Your task to perform on an android device: Open Reddit.com Image 0: 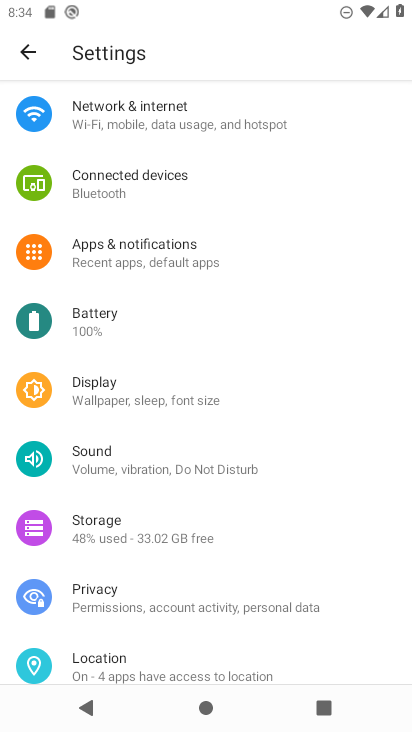
Step 0: press home button
Your task to perform on an android device: Open Reddit.com Image 1: 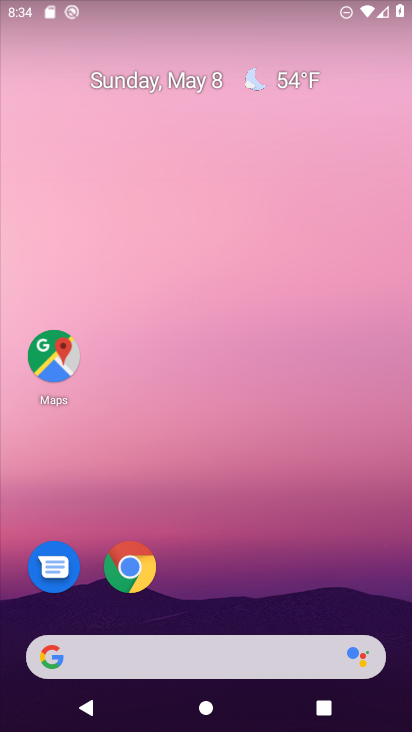
Step 1: drag from (302, 540) to (409, 134)
Your task to perform on an android device: Open Reddit.com Image 2: 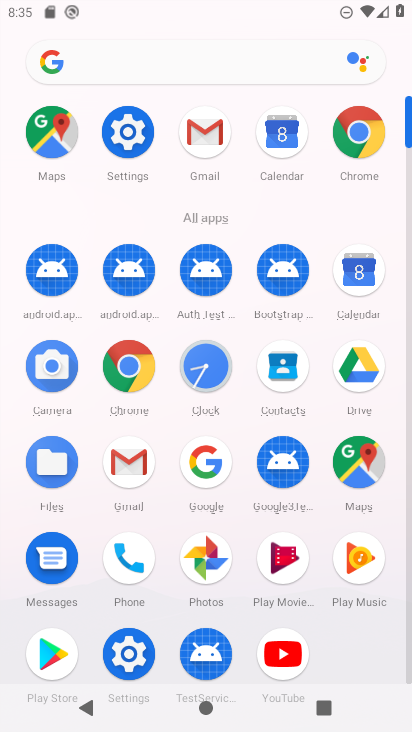
Step 2: click (369, 145)
Your task to perform on an android device: Open Reddit.com Image 3: 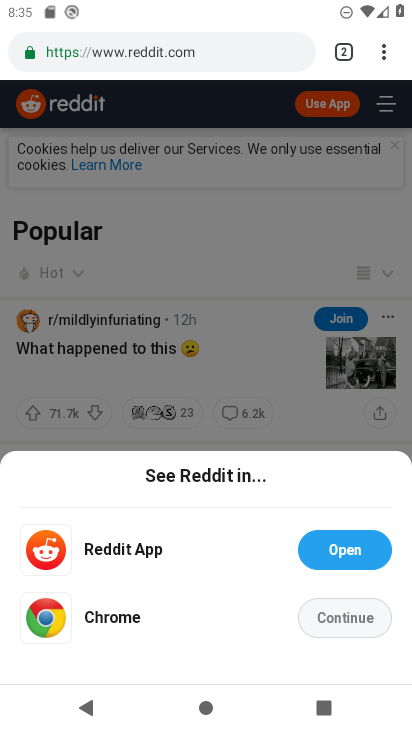
Step 3: click (288, 401)
Your task to perform on an android device: Open Reddit.com Image 4: 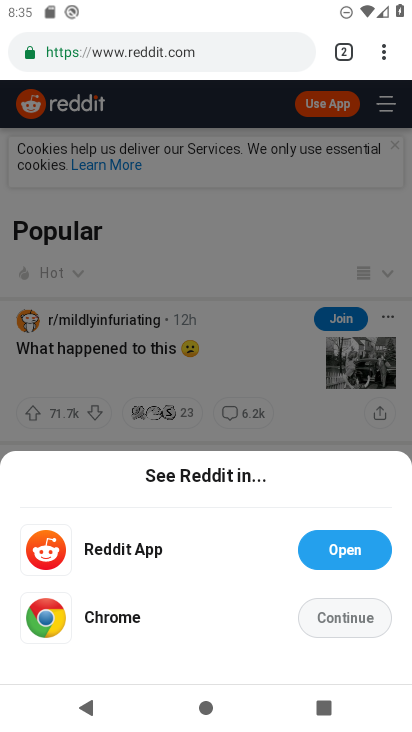
Step 4: press back button
Your task to perform on an android device: Open Reddit.com Image 5: 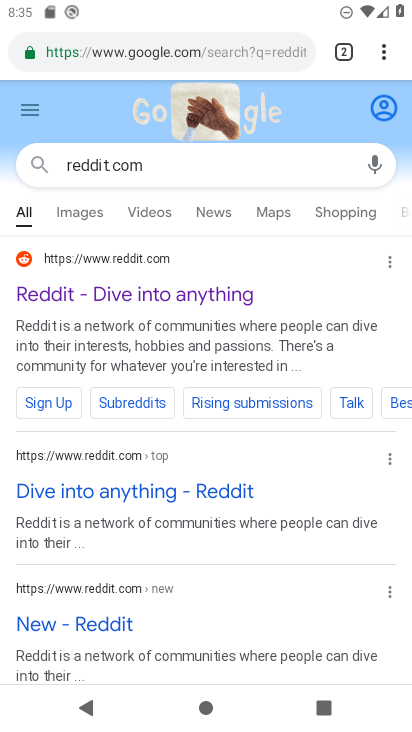
Step 5: click (54, 293)
Your task to perform on an android device: Open Reddit.com Image 6: 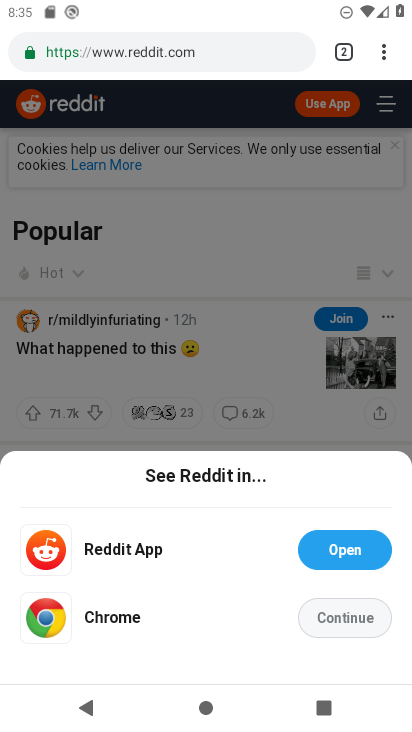
Step 6: click (90, 702)
Your task to perform on an android device: Open Reddit.com Image 7: 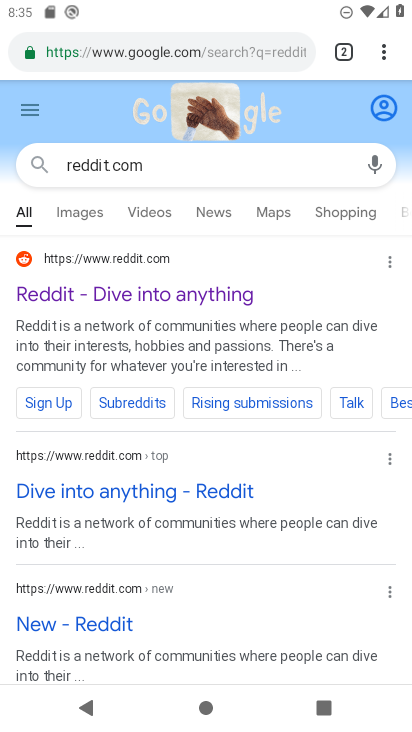
Step 7: click (138, 295)
Your task to perform on an android device: Open Reddit.com Image 8: 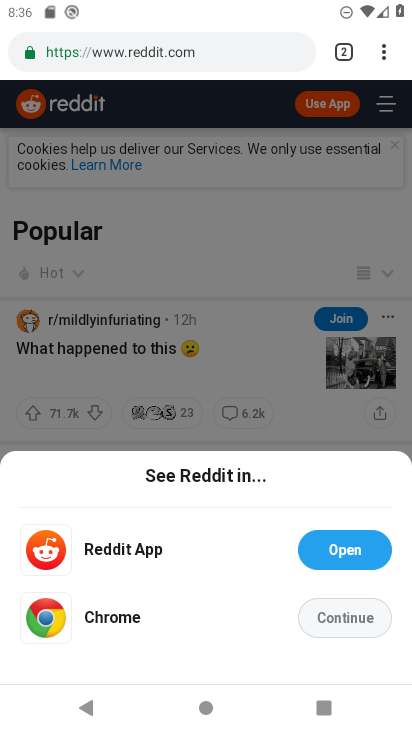
Step 8: task complete